Your task to perform on an android device: check storage Image 0: 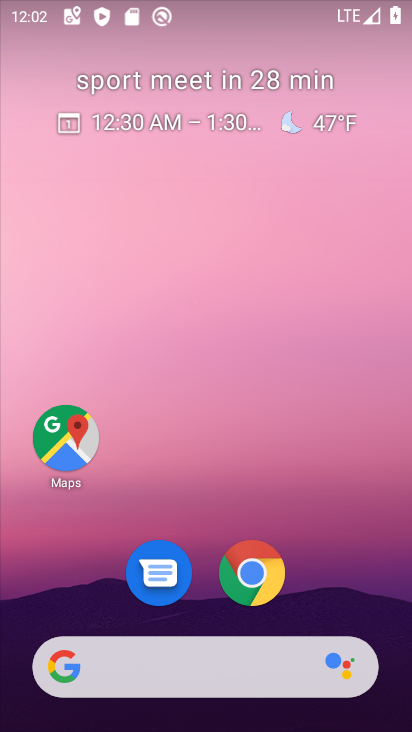
Step 0: drag from (184, 608) to (248, 318)
Your task to perform on an android device: check storage Image 1: 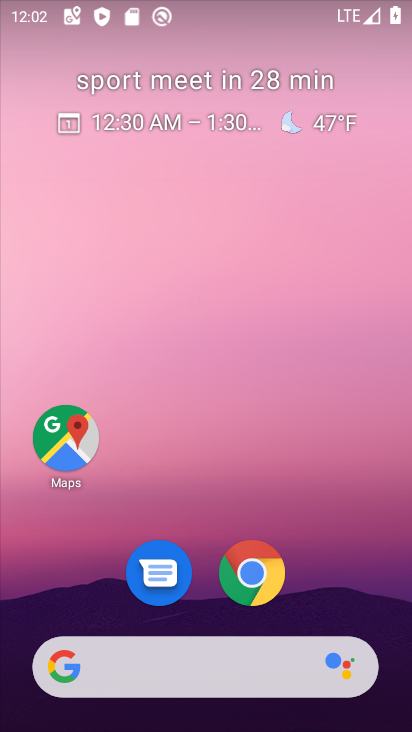
Step 1: drag from (196, 614) to (197, 284)
Your task to perform on an android device: check storage Image 2: 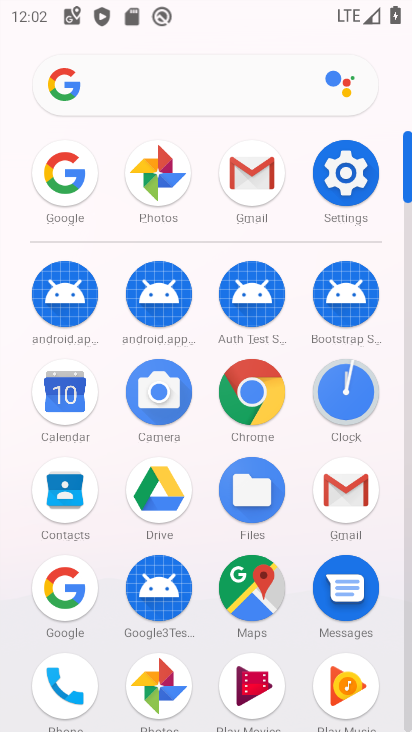
Step 2: click (358, 192)
Your task to perform on an android device: check storage Image 3: 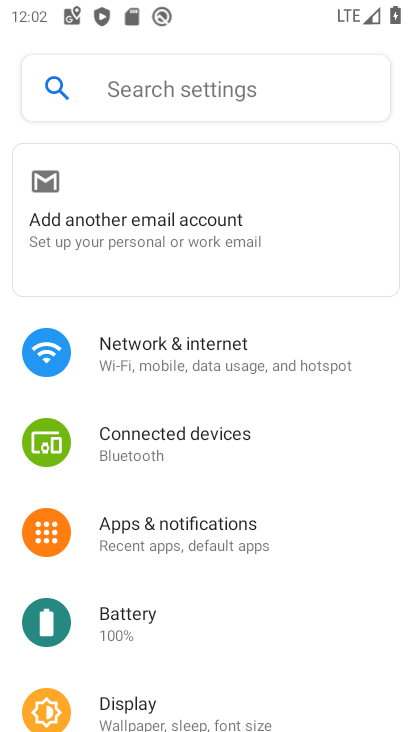
Step 3: drag from (258, 629) to (258, 293)
Your task to perform on an android device: check storage Image 4: 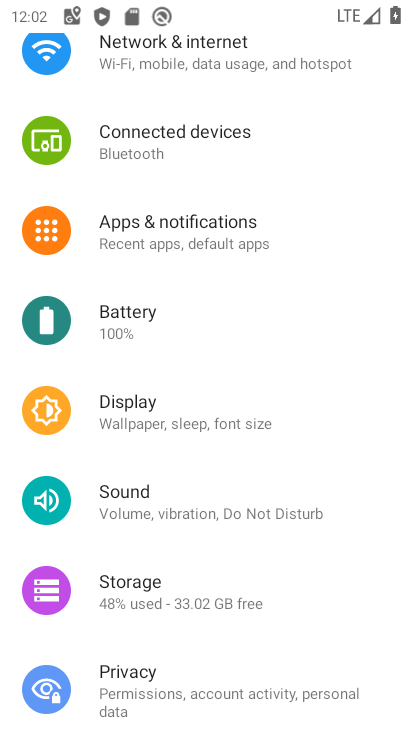
Step 4: click (186, 598)
Your task to perform on an android device: check storage Image 5: 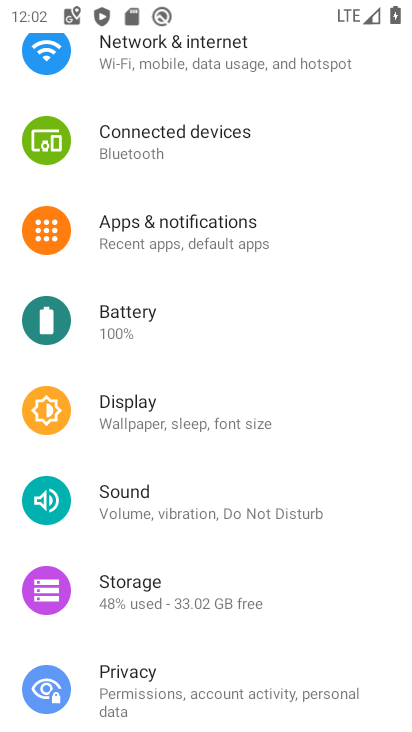
Step 5: click (185, 597)
Your task to perform on an android device: check storage Image 6: 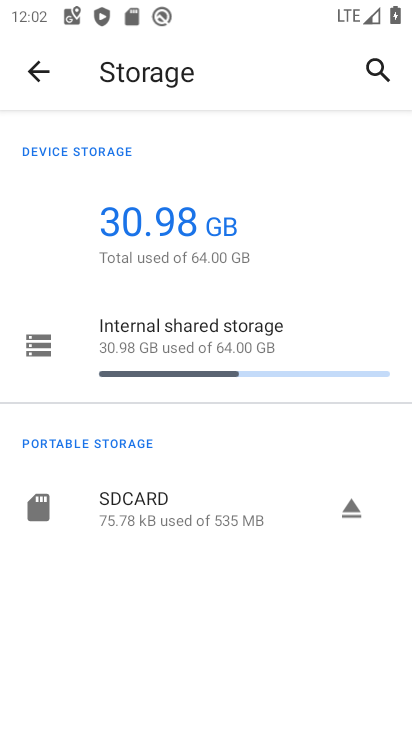
Step 6: task complete